Your task to perform on an android device: Open the Play Movies app and select the watchlist tab. Image 0: 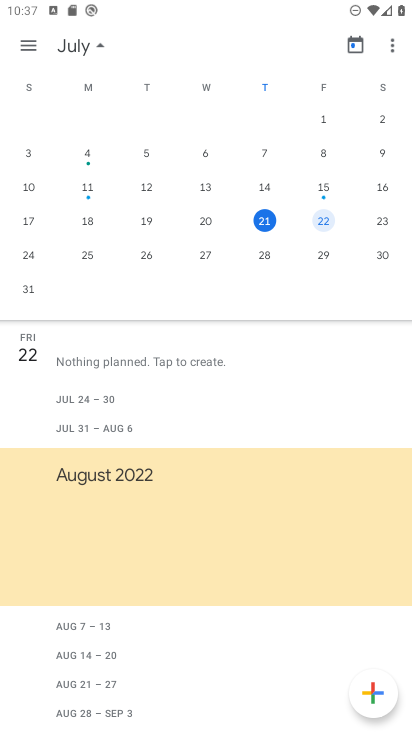
Step 0: press home button
Your task to perform on an android device: Open the Play Movies app and select the watchlist tab. Image 1: 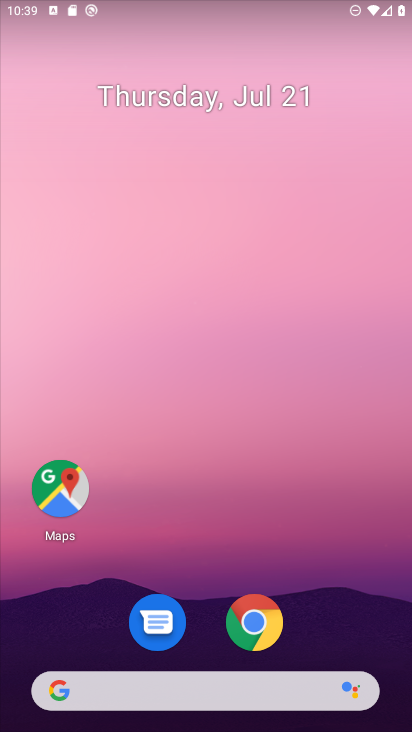
Step 1: drag from (164, 705) to (284, 174)
Your task to perform on an android device: Open the Play Movies app and select the watchlist tab. Image 2: 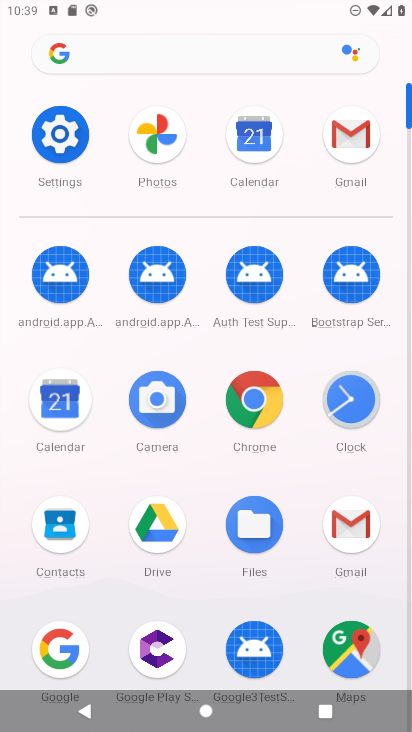
Step 2: drag from (272, 460) to (278, 230)
Your task to perform on an android device: Open the Play Movies app and select the watchlist tab. Image 3: 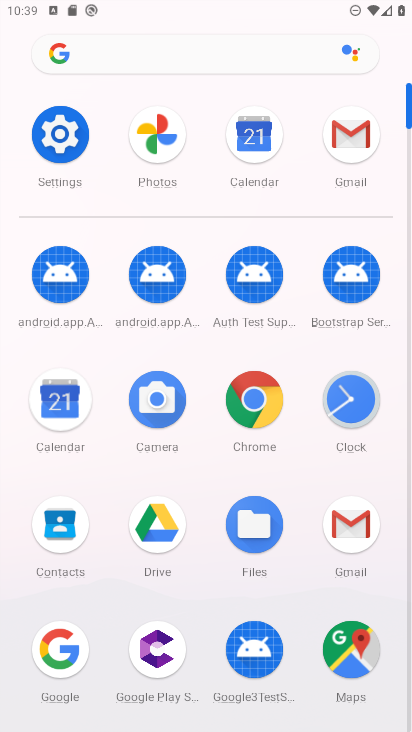
Step 3: drag from (301, 606) to (241, 204)
Your task to perform on an android device: Open the Play Movies app and select the watchlist tab. Image 4: 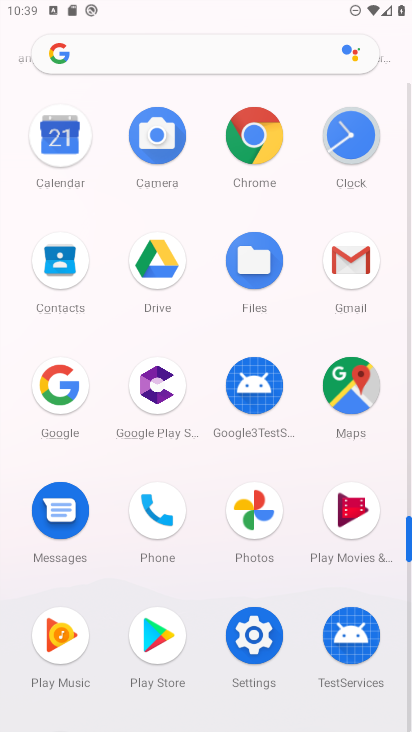
Step 4: click (369, 518)
Your task to perform on an android device: Open the Play Movies app and select the watchlist tab. Image 5: 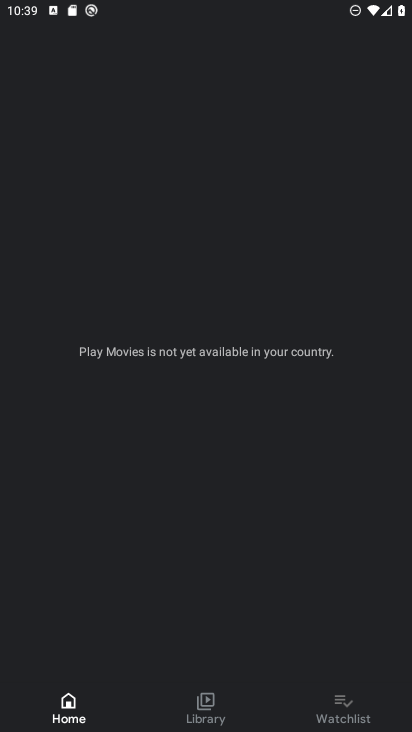
Step 5: click (350, 709)
Your task to perform on an android device: Open the Play Movies app and select the watchlist tab. Image 6: 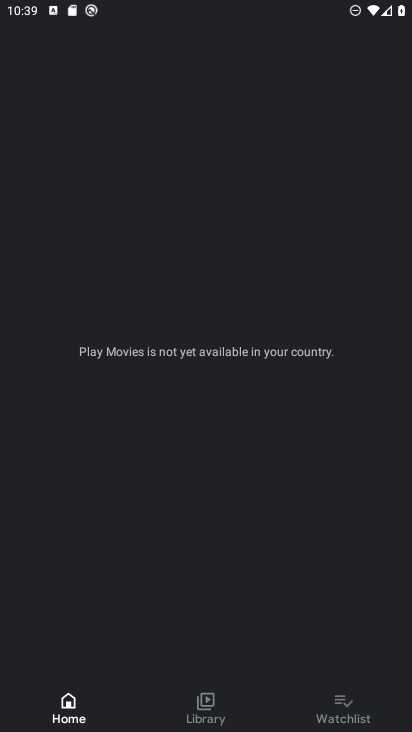
Step 6: click (350, 709)
Your task to perform on an android device: Open the Play Movies app and select the watchlist tab. Image 7: 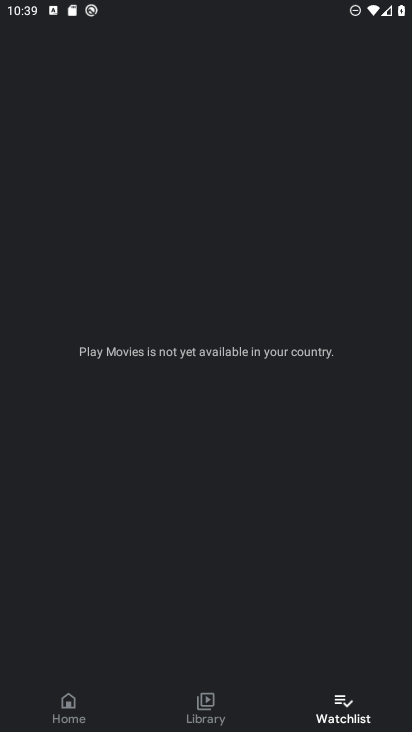
Step 7: task complete